Your task to perform on an android device: toggle pop-ups in chrome Image 0: 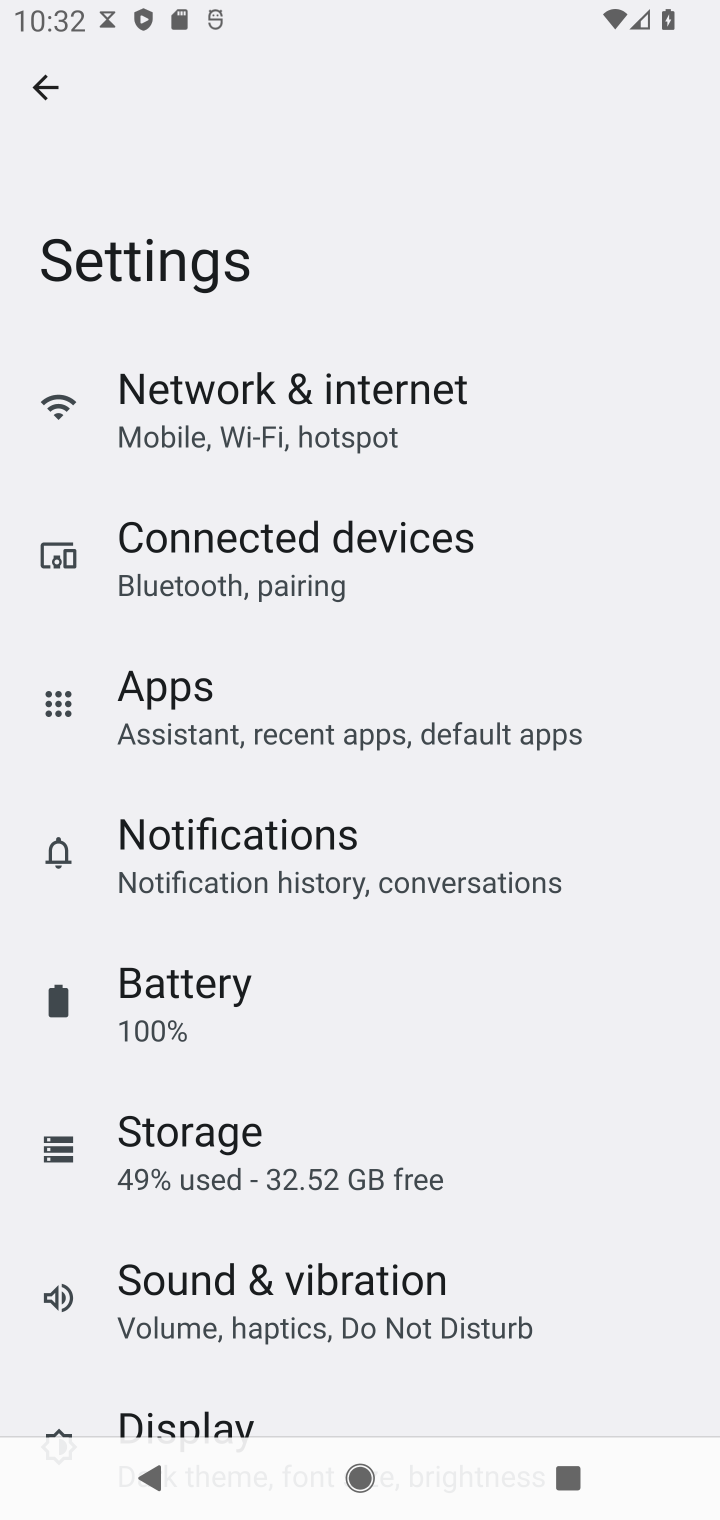
Step 0: press back button
Your task to perform on an android device: toggle pop-ups in chrome Image 1: 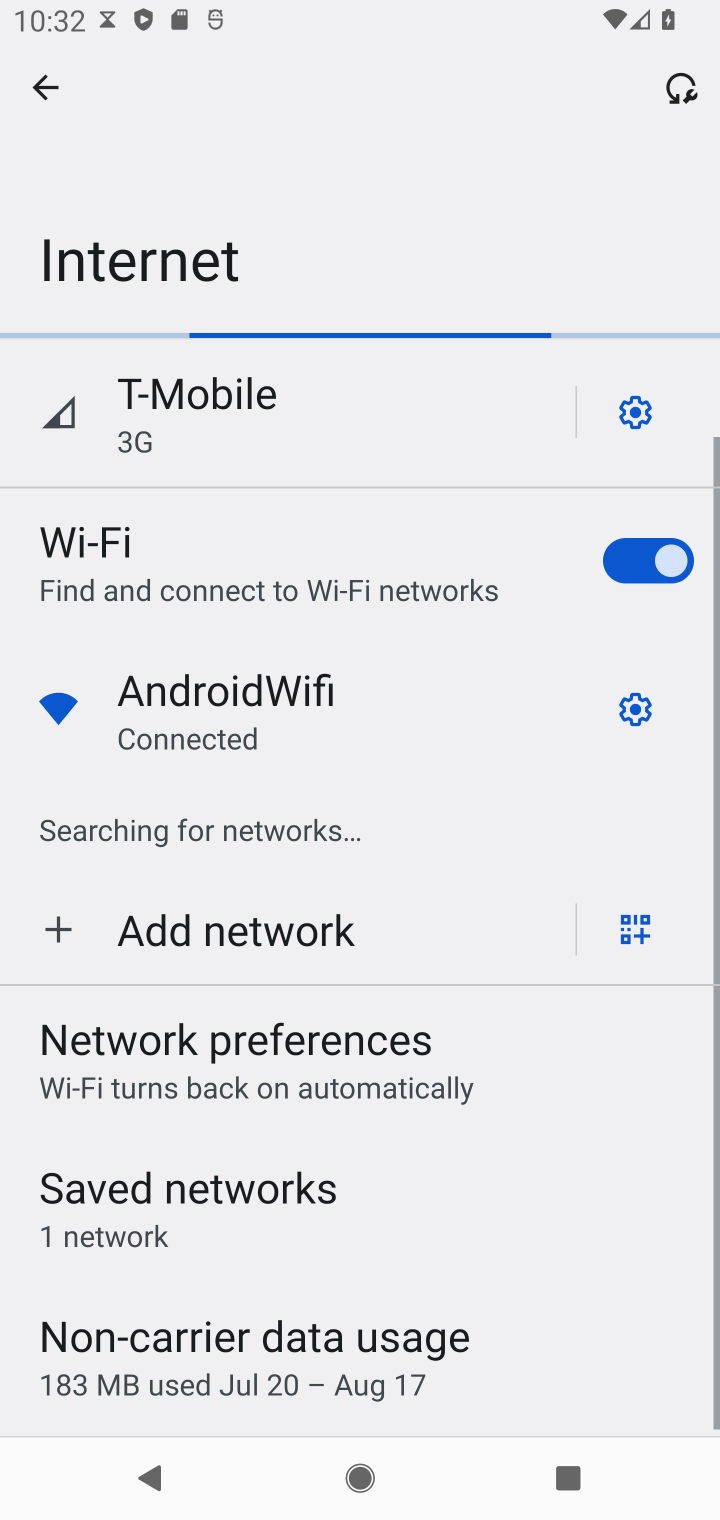
Step 1: press back button
Your task to perform on an android device: toggle pop-ups in chrome Image 2: 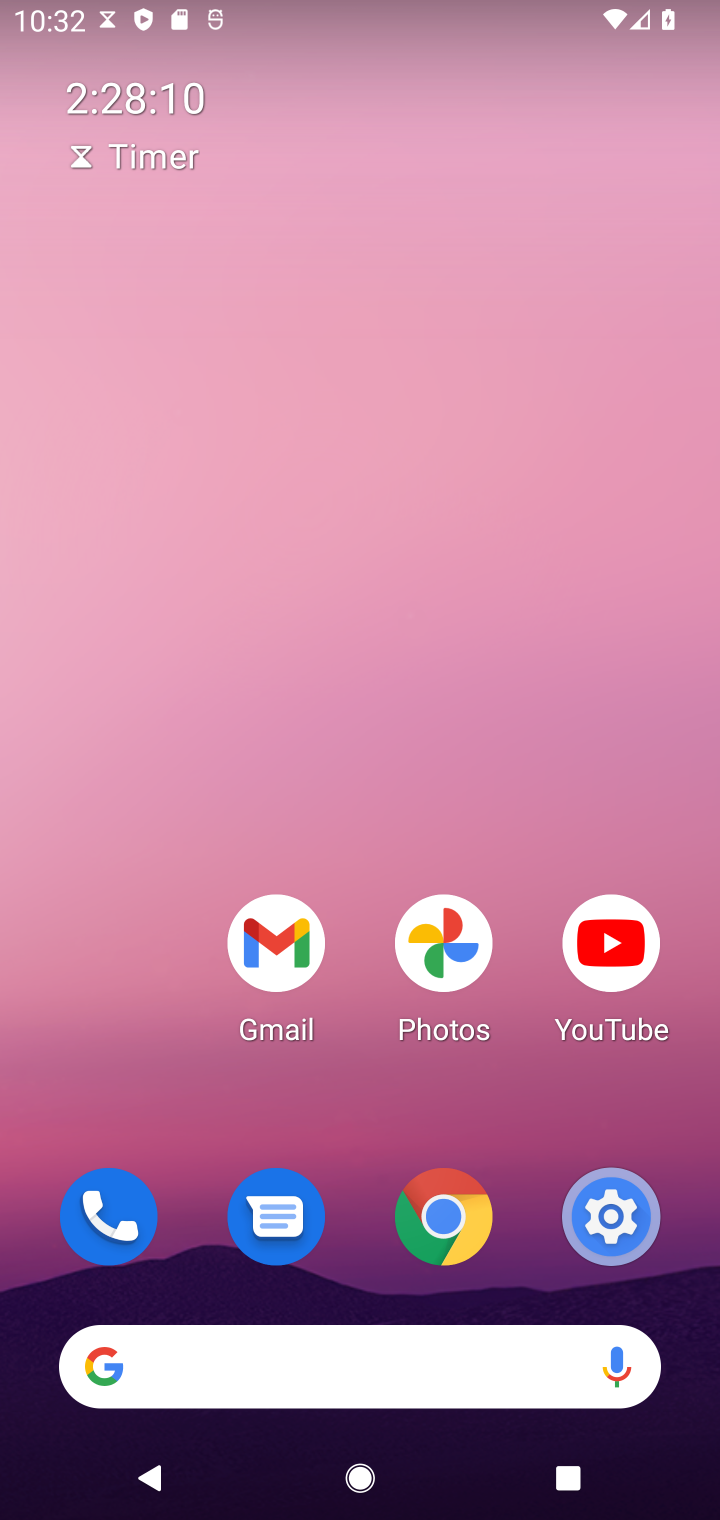
Step 2: click (441, 1233)
Your task to perform on an android device: toggle pop-ups in chrome Image 3: 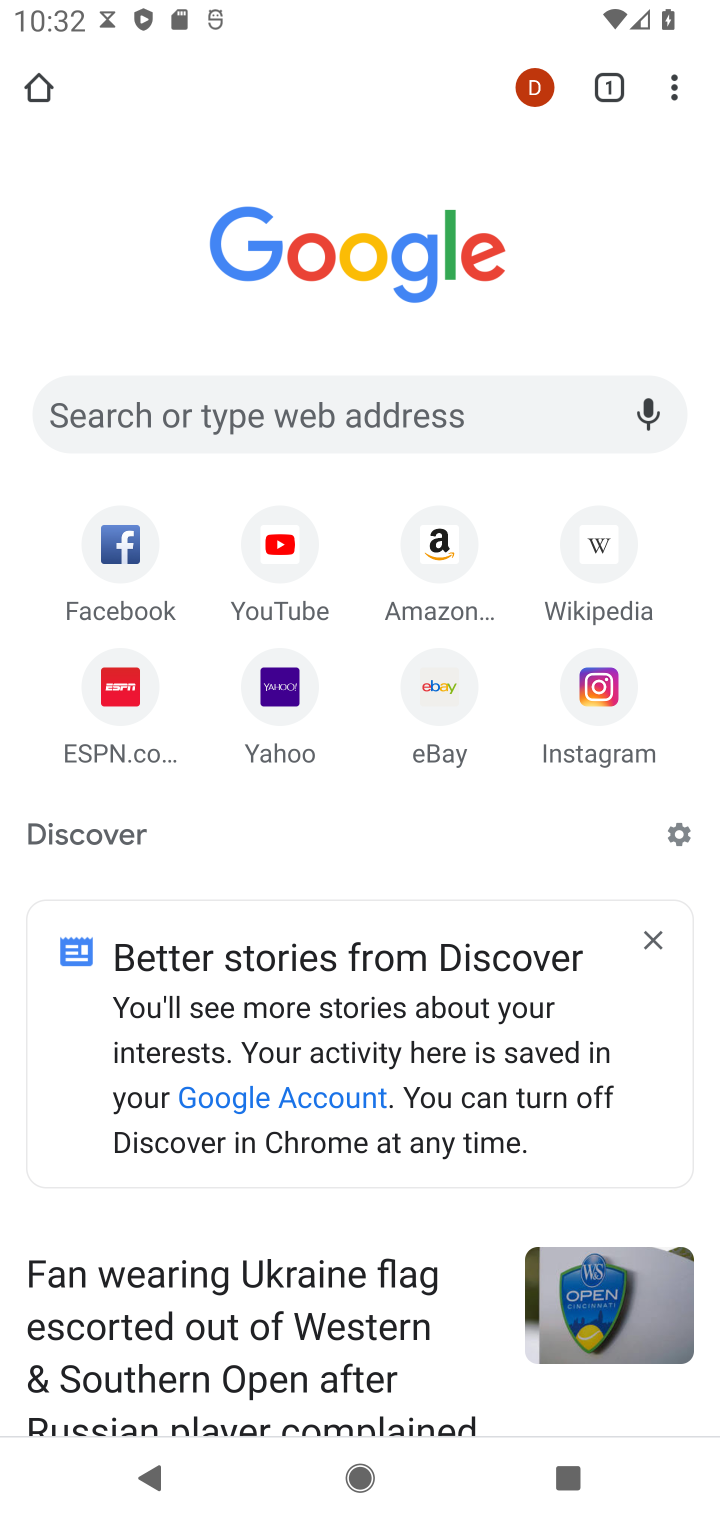
Step 3: drag from (672, 77) to (511, 770)
Your task to perform on an android device: toggle pop-ups in chrome Image 4: 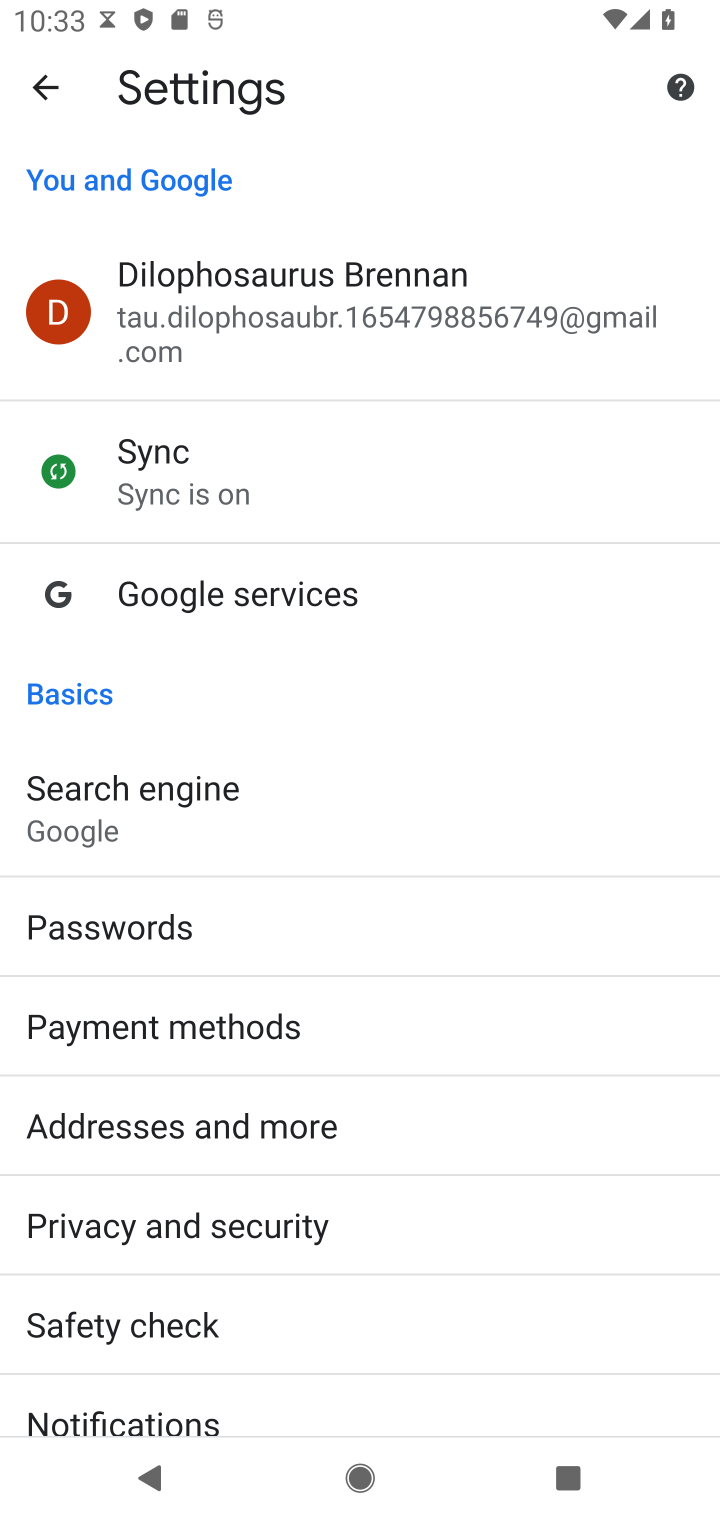
Step 4: drag from (223, 1375) to (391, 319)
Your task to perform on an android device: toggle pop-ups in chrome Image 5: 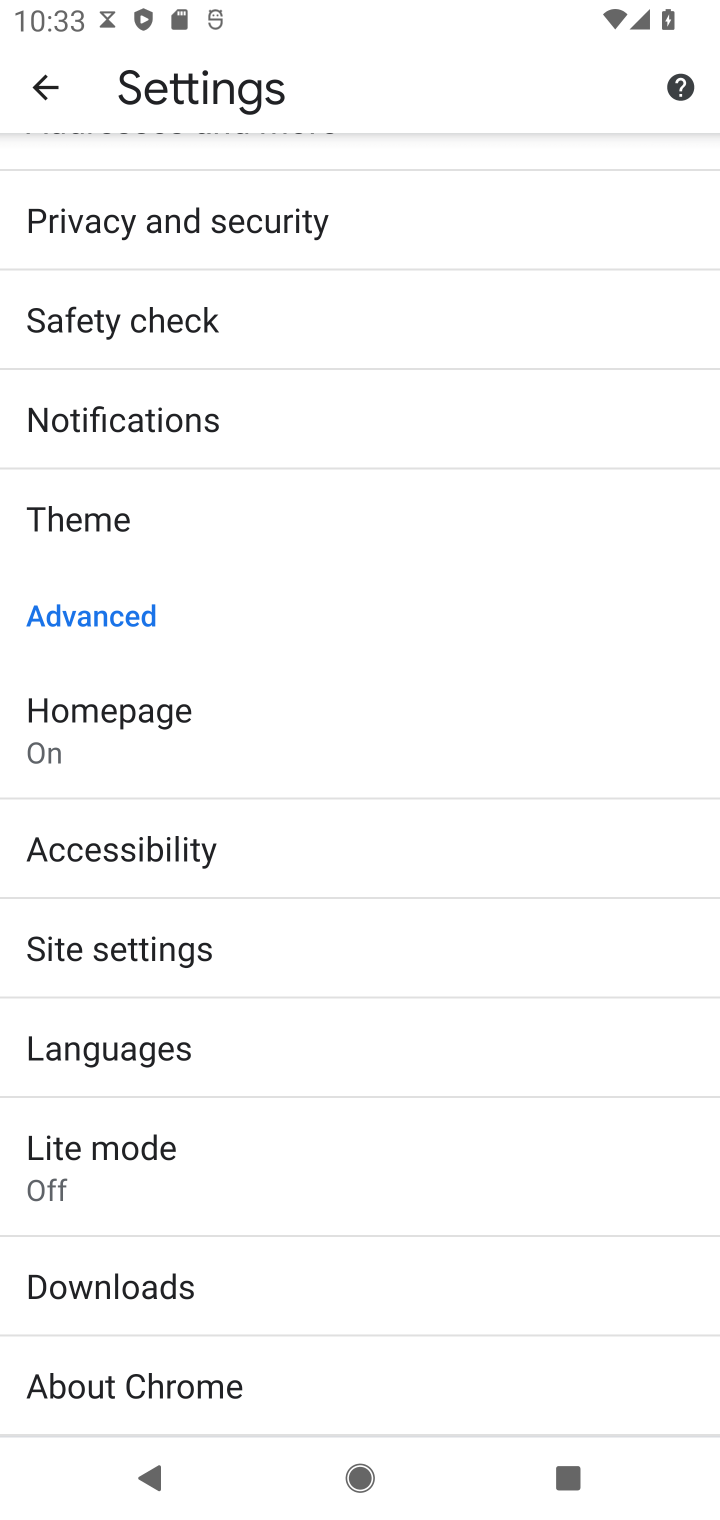
Step 5: click (166, 939)
Your task to perform on an android device: toggle pop-ups in chrome Image 6: 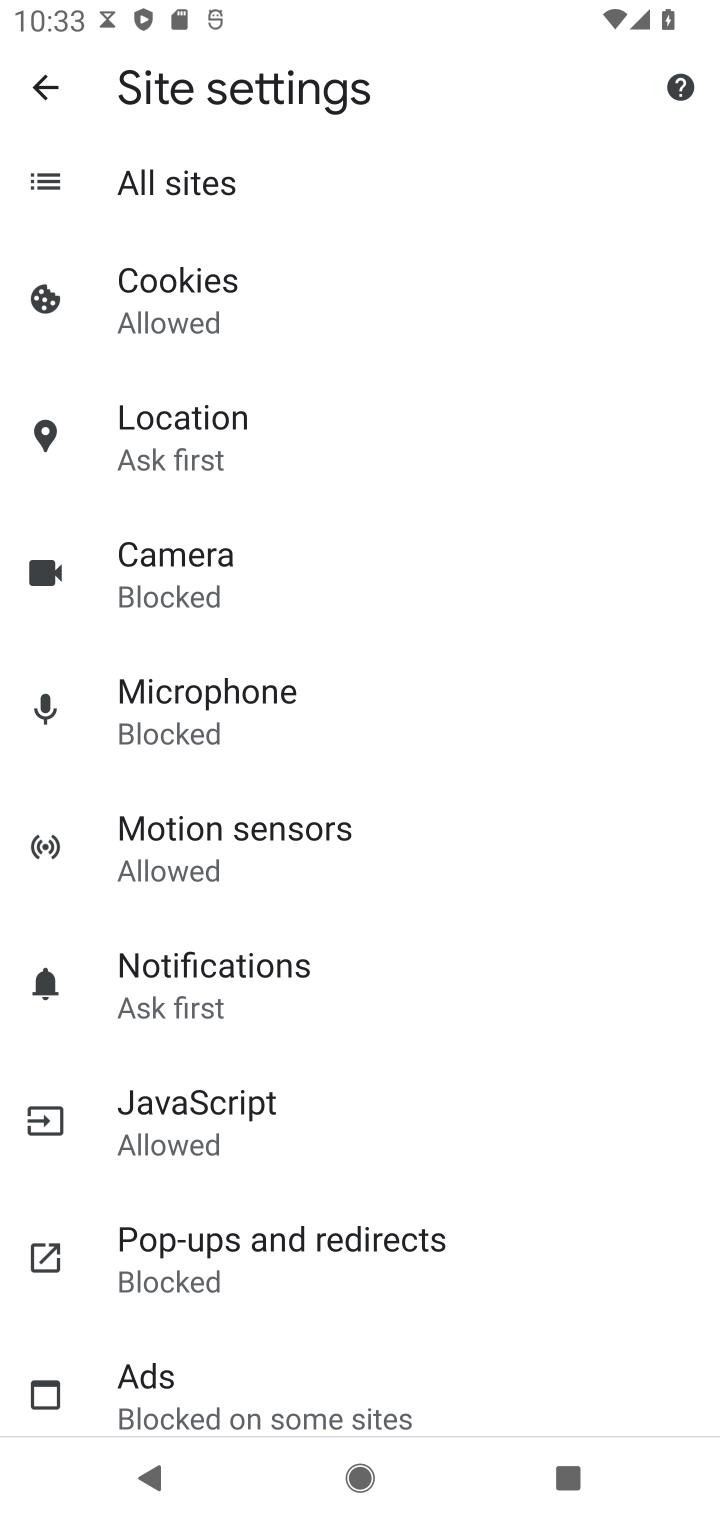
Step 6: click (215, 1258)
Your task to perform on an android device: toggle pop-ups in chrome Image 7: 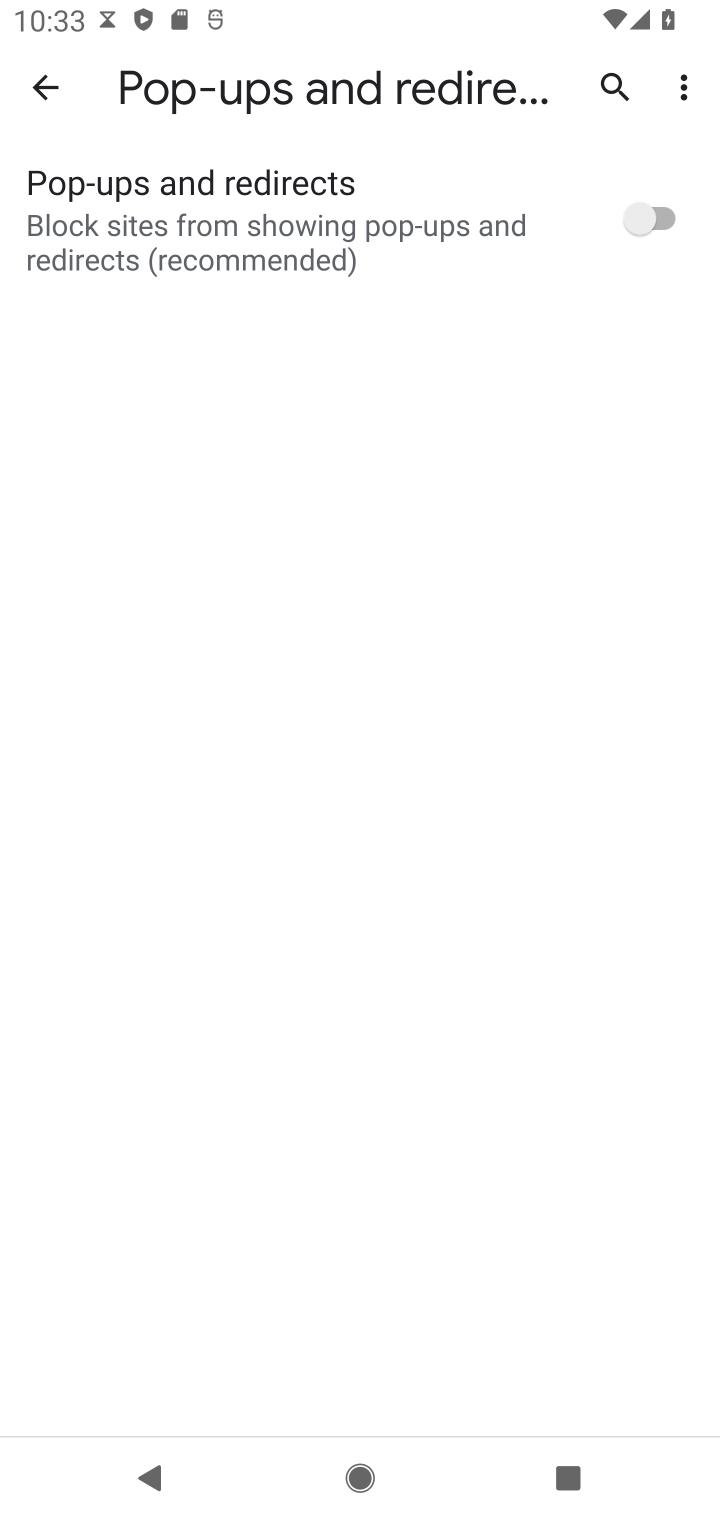
Step 7: click (649, 201)
Your task to perform on an android device: toggle pop-ups in chrome Image 8: 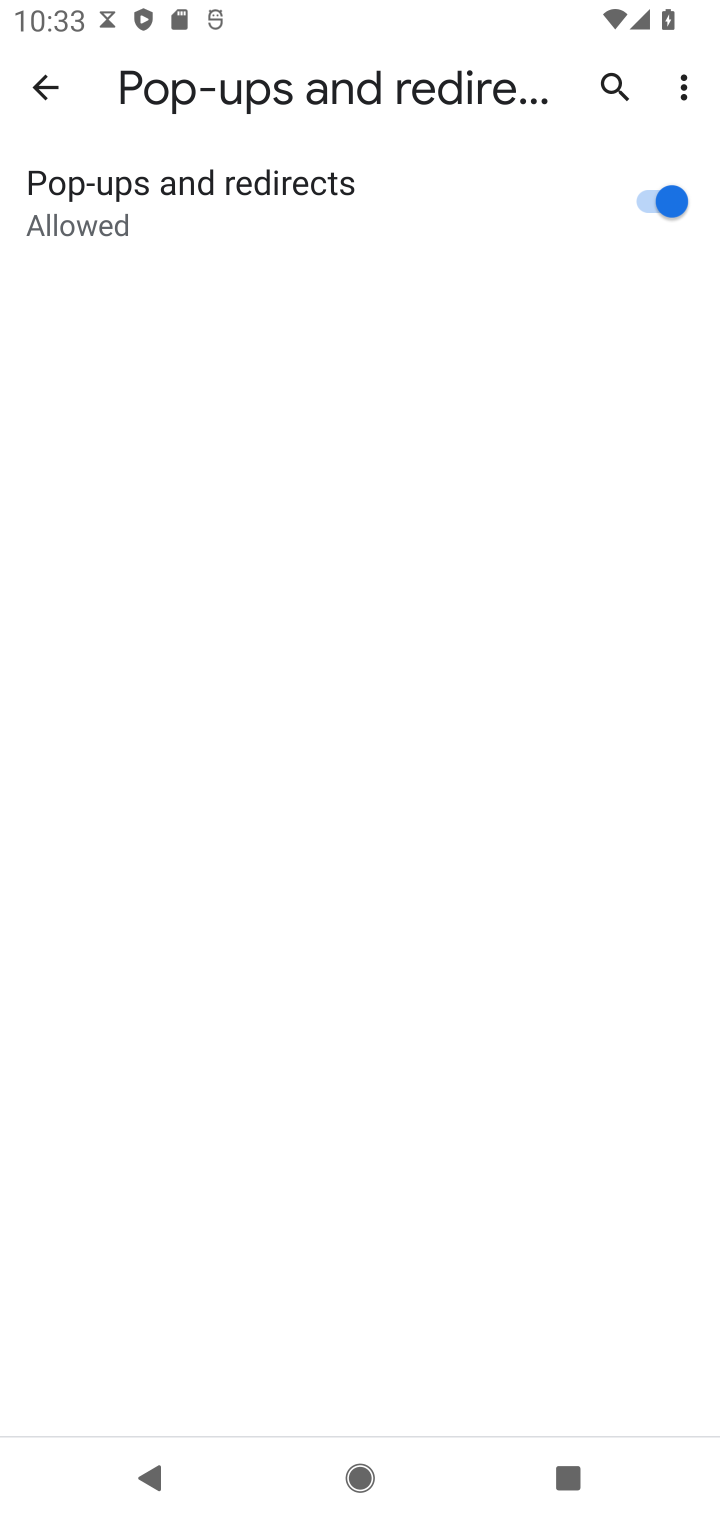
Step 8: task complete